Your task to perform on an android device: Open Wikipedia Image 0: 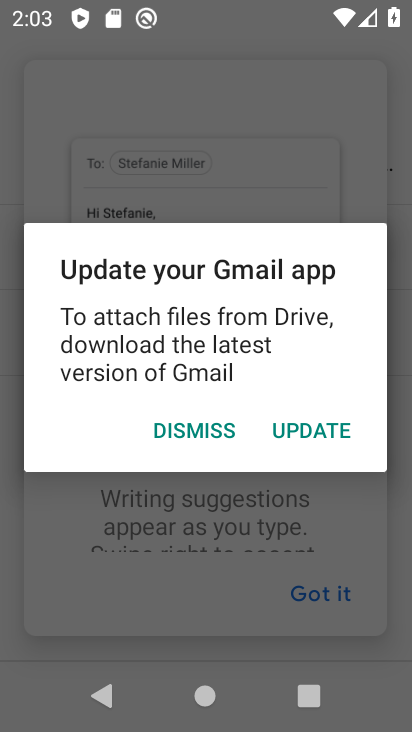
Step 0: press home button
Your task to perform on an android device: Open Wikipedia Image 1: 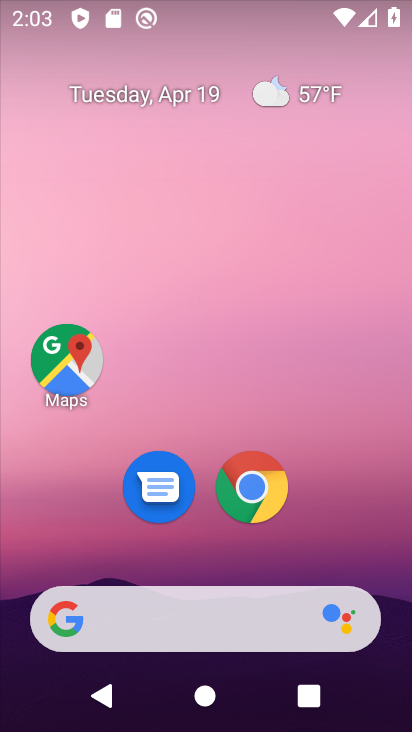
Step 1: click (247, 498)
Your task to perform on an android device: Open Wikipedia Image 2: 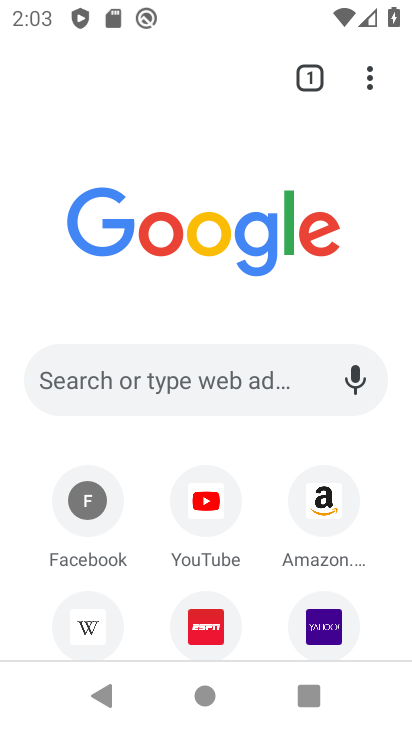
Step 2: click (78, 640)
Your task to perform on an android device: Open Wikipedia Image 3: 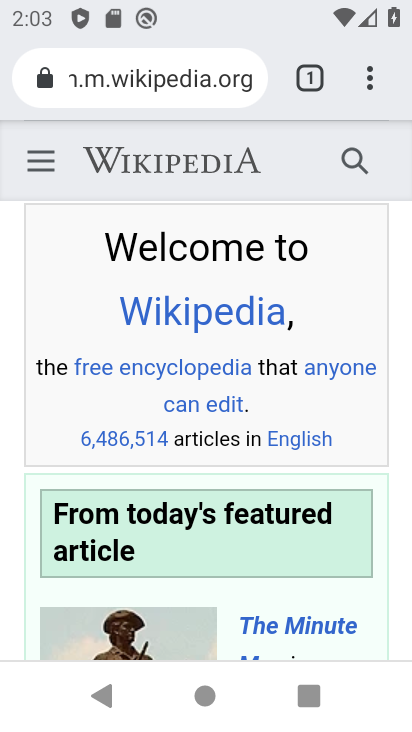
Step 3: task complete